Your task to perform on an android device: Open Amazon Image 0: 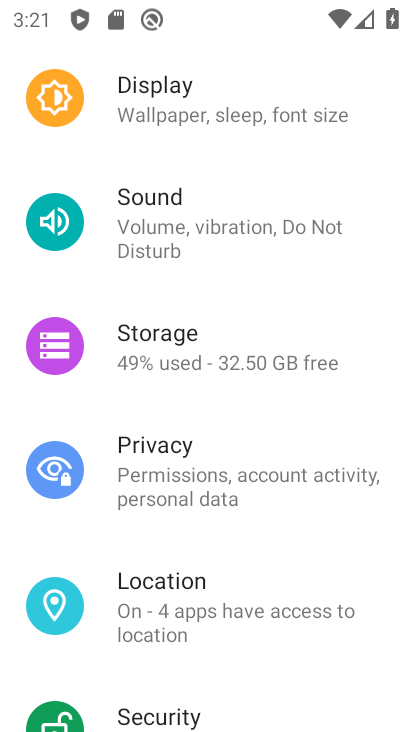
Step 0: press home button
Your task to perform on an android device: Open Amazon Image 1: 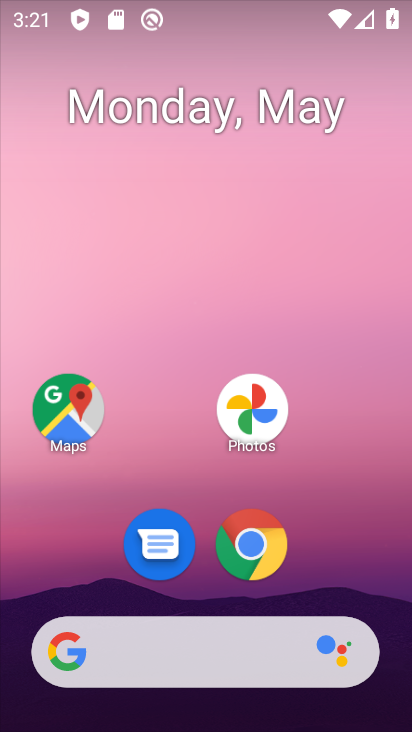
Step 1: drag from (256, 682) to (256, 140)
Your task to perform on an android device: Open Amazon Image 2: 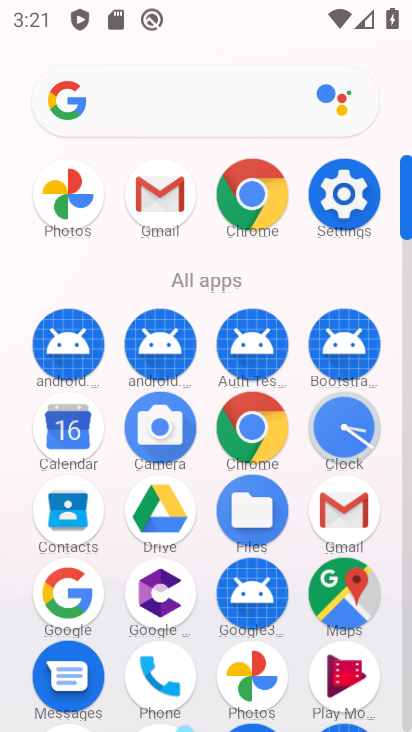
Step 2: click (251, 420)
Your task to perform on an android device: Open Amazon Image 3: 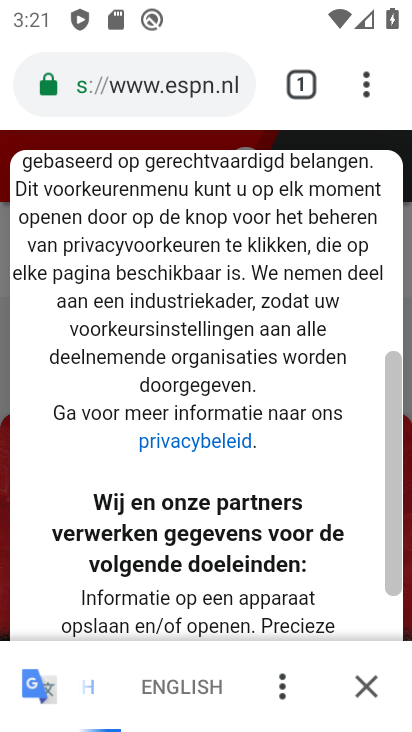
Step 3: click (360, 76)
Your task to perform on an android device: Open Amazon Image 4: 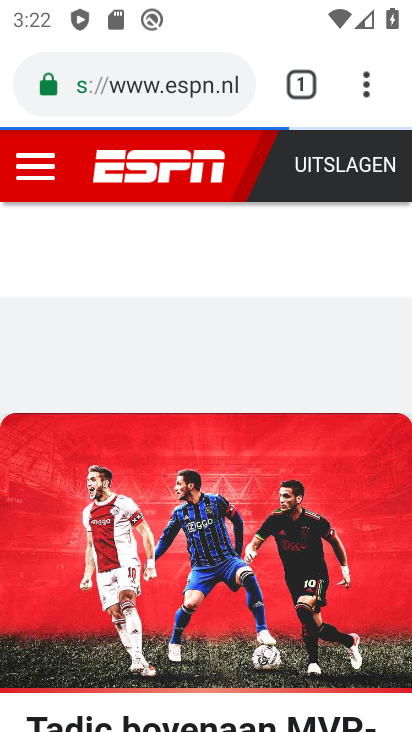
Step 4: click (372, 77)
Your task to perform on an android device: Open Amazon Image 5: 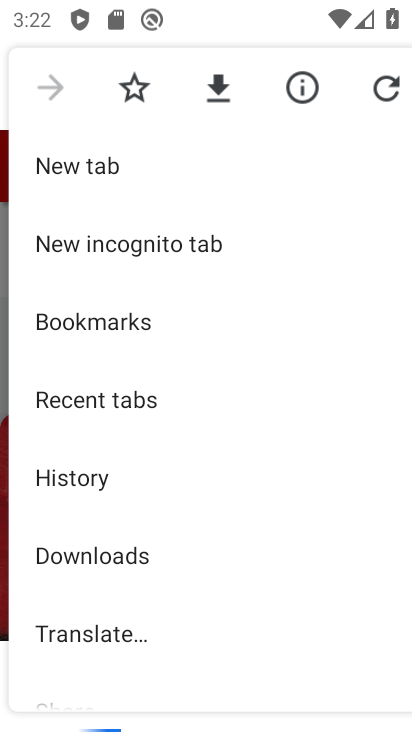
Step 5: click (179, 156)
Your task to perform on an android device: Open Amazon Image 6: 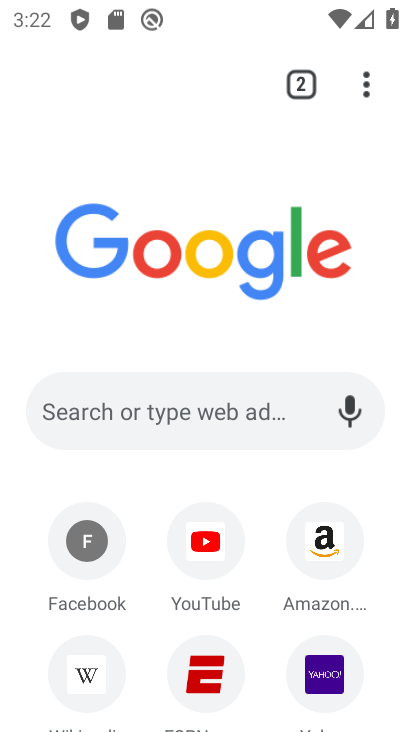
Step 6: click (299, 550)
Your task to perform on an android device: Open Amazon Image 7: 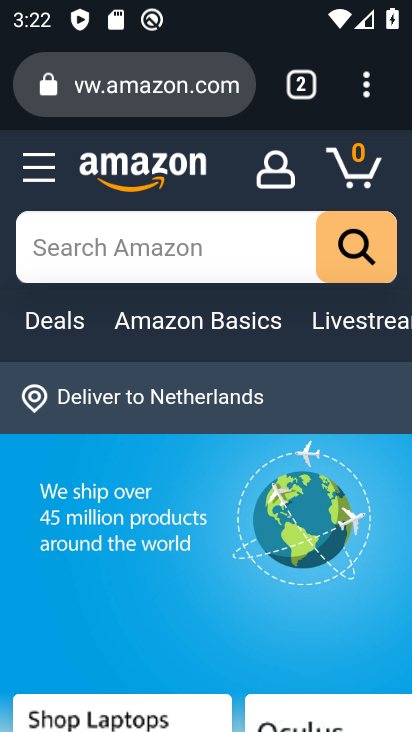
Step 7: task complete